Your task to perform on an android device: toggle show notifications on the lock screen Image 0: 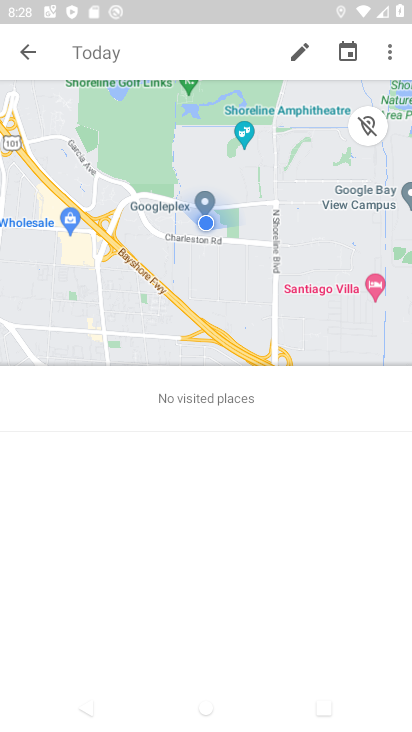
Step 0: press home button
Your task to perform on an android device: toggle show notifications on the lock screen Image 1: 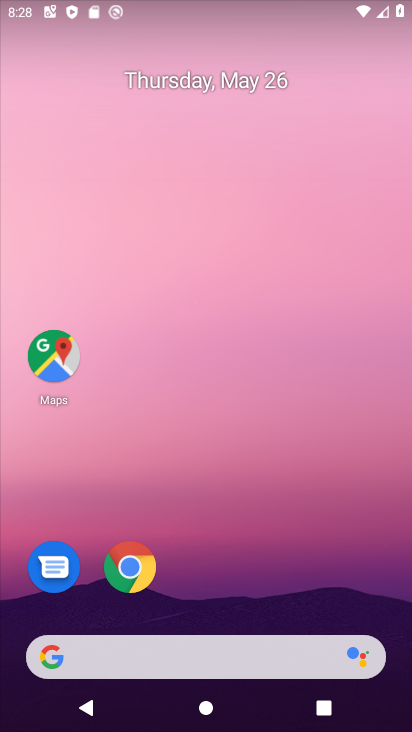
Step 1: drag from (149, 650) to (324, 95)
Your task to perform on an android device: toggle show notifications on the lock screen Image 2: 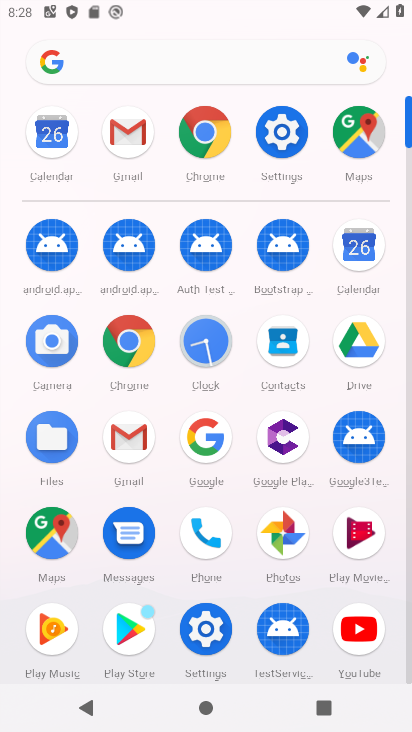
Step 2: click (286, 139)
Your task to perform on an android device: toggle show notifications on the lock screen Image 3: 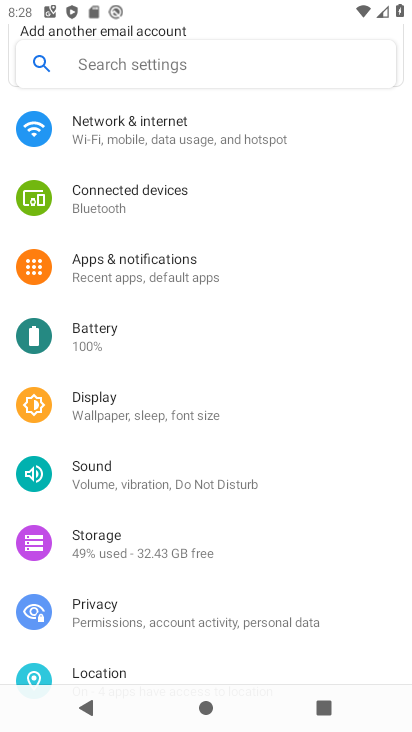
Step 3: click (133, 264)
Your task to perform on an android device: toggle show notifications on the lock screen Image 4: 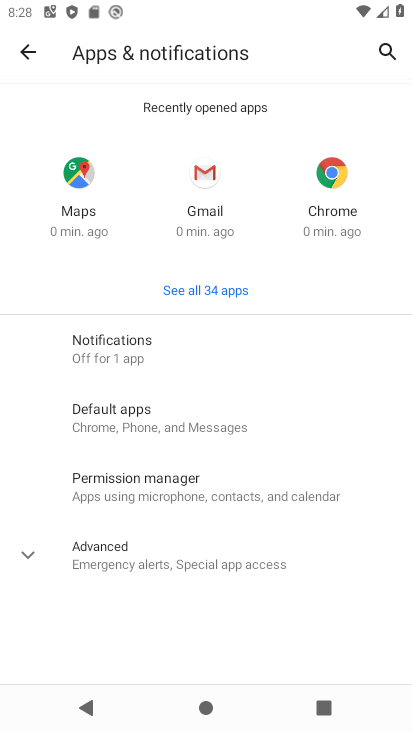
Step 4: click (128, 346)
Your task to perform on an android device: toggle show notifications on the lock screen Image 5: 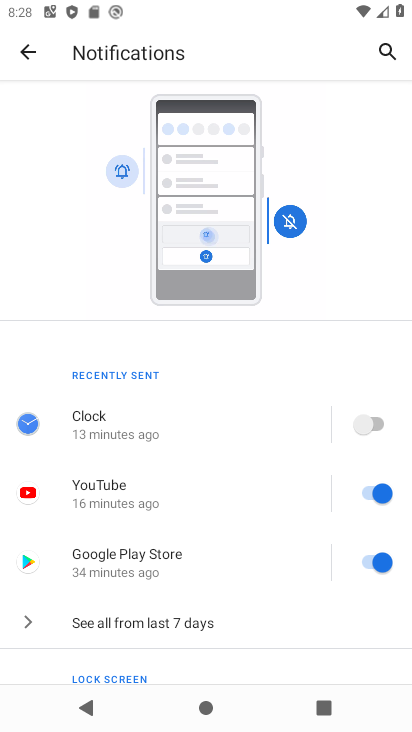
Step 5: drag from (226, 626) to (358, 273)
Your task to perform on an android device: toggle show notifications on the lock screen Image 6: 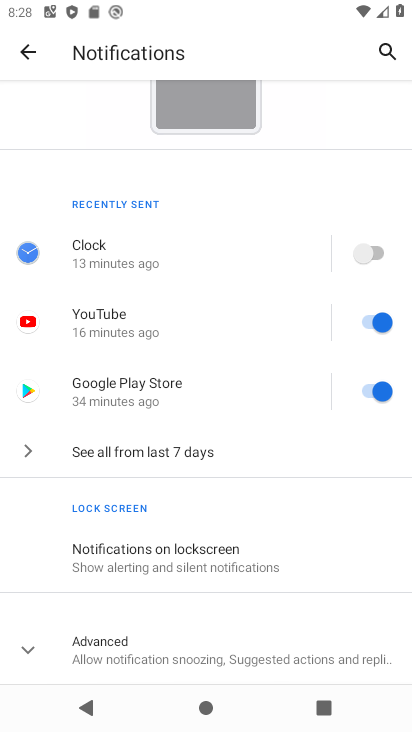
Step 6: click (167, 549)
Your task to perform on an android device: toggle show notifications on the lock screen Image 7: 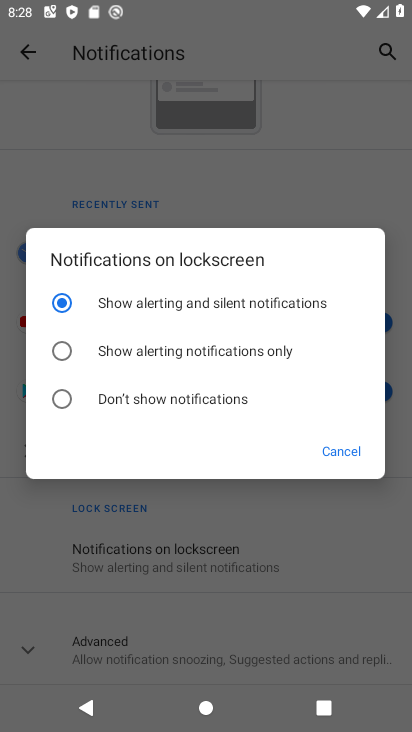
Step 7: click (60, 398)
Your task to perform on an android device: toggle show notifications on the lock screen Image 8: 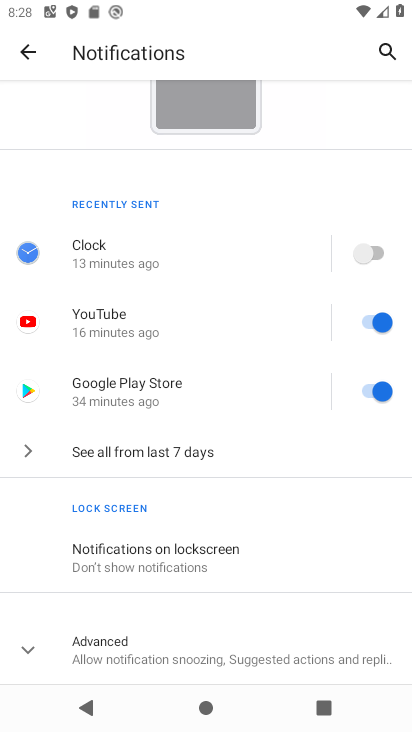
Step 8: task complete